Your task to perform on an android device: Open maps Image 0: 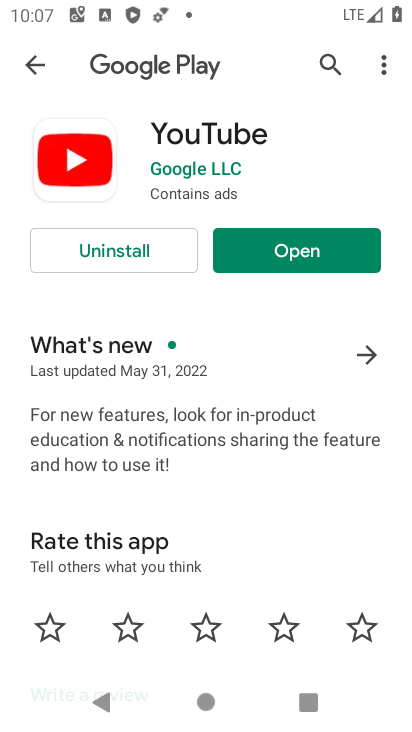
Step 0: press home button
Your task to perform on an android device: Open maps Image 1: 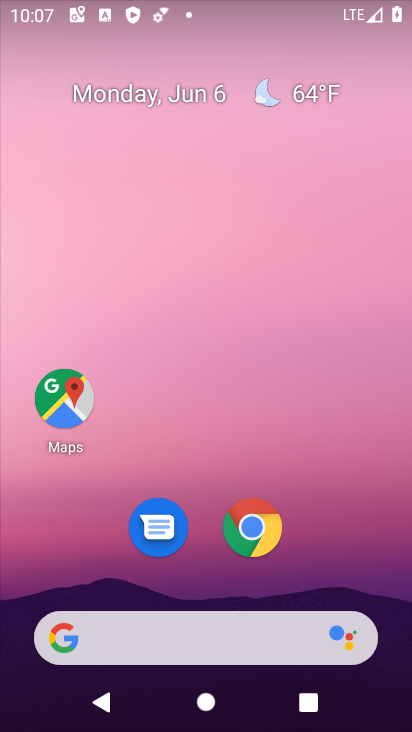
Step 1: drag from (201, 608) to (211, 215)
Your task to perform on an android device: Open maps Image 2: 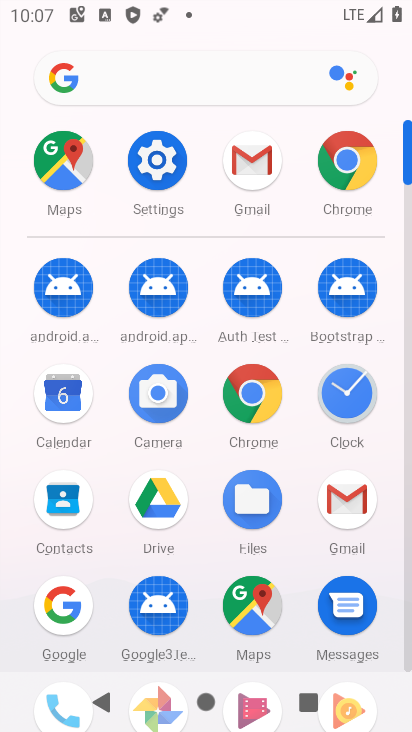
Step 2: click (254, 604)
Your task to perform on an android device: Open maps Image 3: 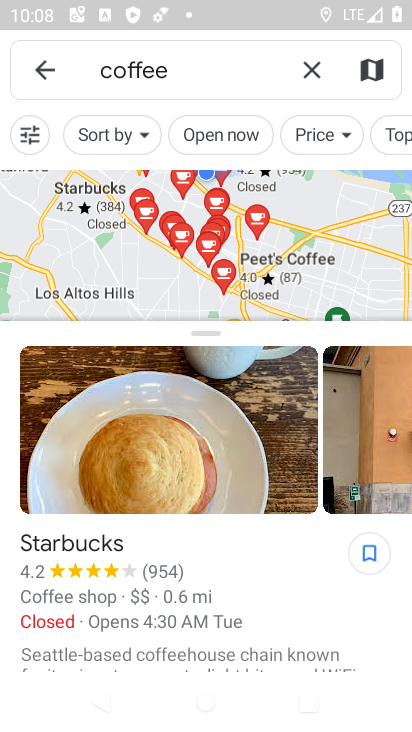
Step 3: task complete